Your task to perform on an android device: Open internet settings Image 0: 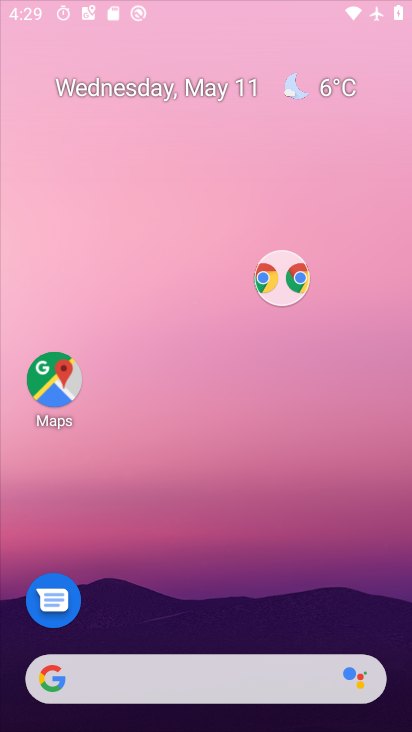
Step 0: drag from (351, 647) to (160, 100)
Your task to perform on an android device: Open internet settings Image 1: 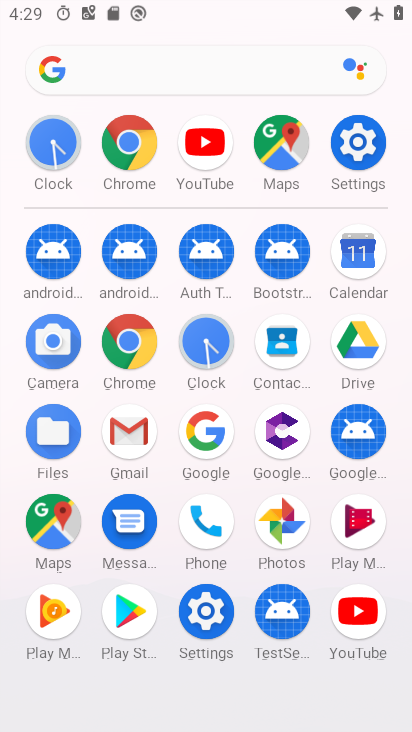
Step 1: click (354, 145)
Your task to perform on an android device: Open internet settings Image 2: 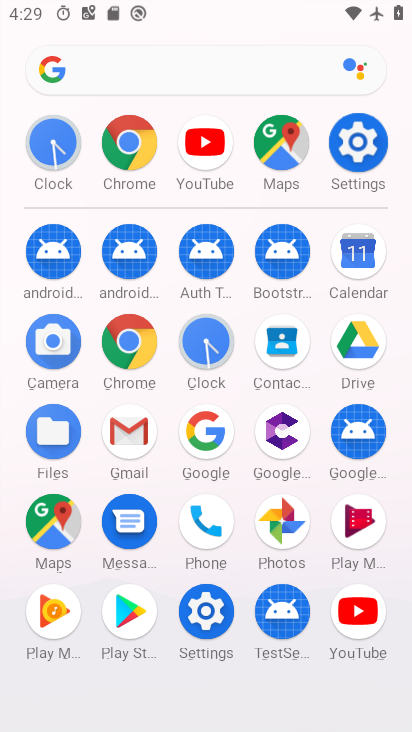
Step 2: click (354, 146)
Your task to perform on an android device: Open internet settings Image 3: 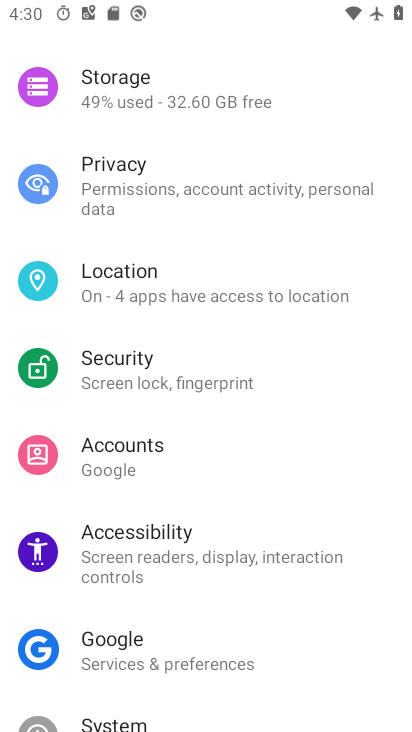
Step 3: press back button
Your task to perform on an android device: Open internet settings Image 4: 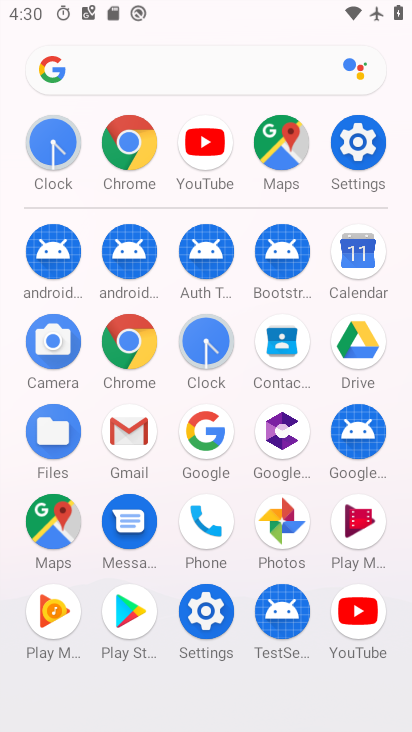
Step 4: click (355, 164)
Your task to perform on an android device: Open internet settings Image 5: 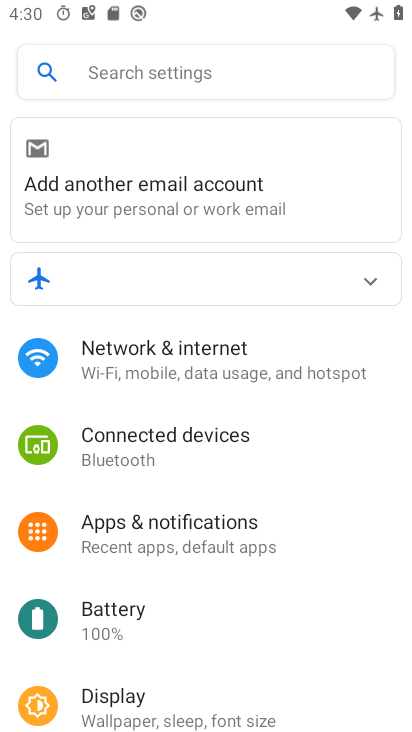
Step 5: click (165, 367)
Your task to perform on an android device: Open internet settings Image 6: 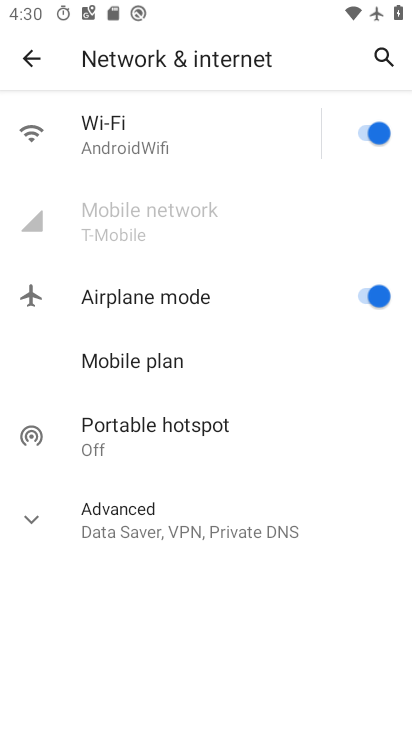
Step 6: task complete